Your task to perform on an android device: Show me productivity apps on the Play Store Image 0: 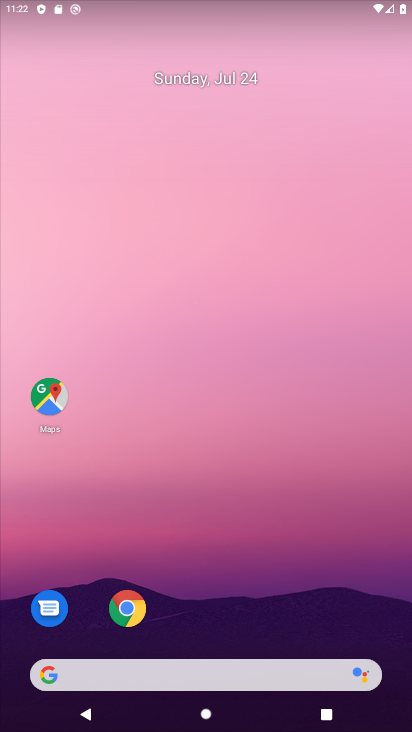
Step 0: drag from (304, 637) to (259, 12)
Your task to perform on an android device: Show me productivity apps on the Play Store Image 1: 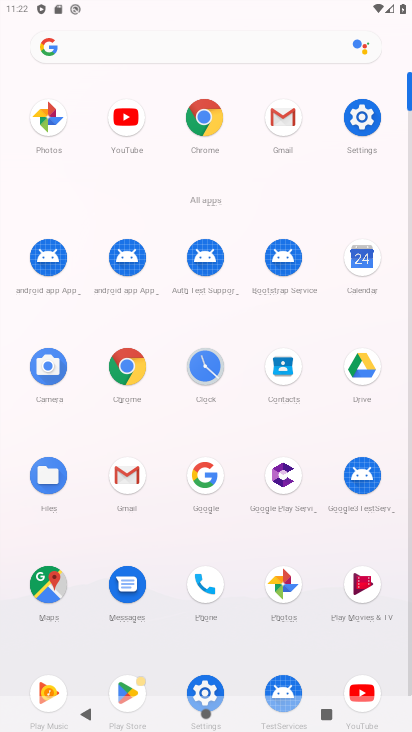
Step 1: click (411, 571)
Your task to perform on an android device: Show me productivity apps on the Play Store Image 2: 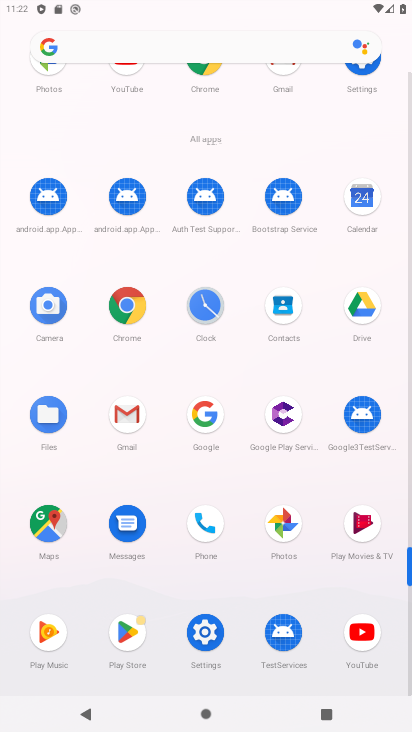
Step 2: click (127, 632)
Your task to perform on an android device: Show me productivity apps on the Play Store Image 3: 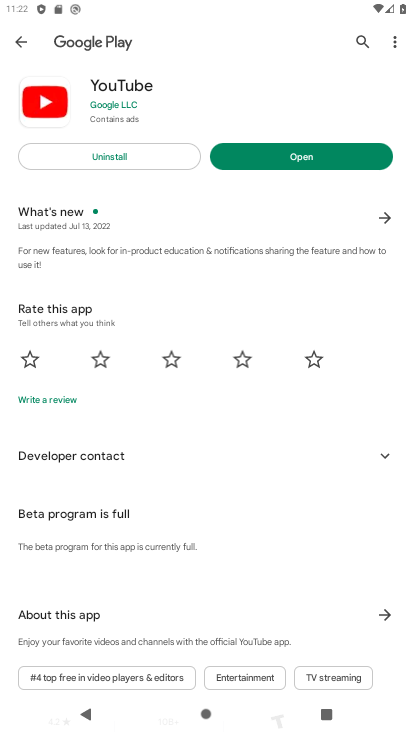
Step 3: click (26, 42)
Your task to perform on an android device: Show me productivity apps on the Play Store Image 4: 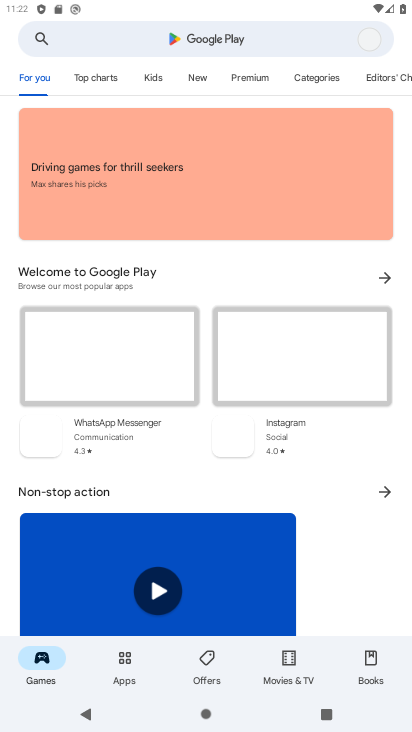
Step 4: click (130, 672)
Your task to perform on an android device: Show me productivity apps on the Play Store Image 5: 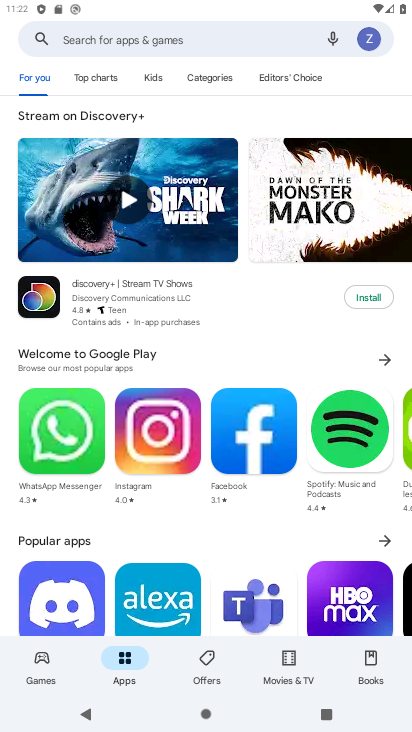
Step 5: click (226, 77)
Your task to perform on an android device: Show me productivity apps on the Play Store Image 6: 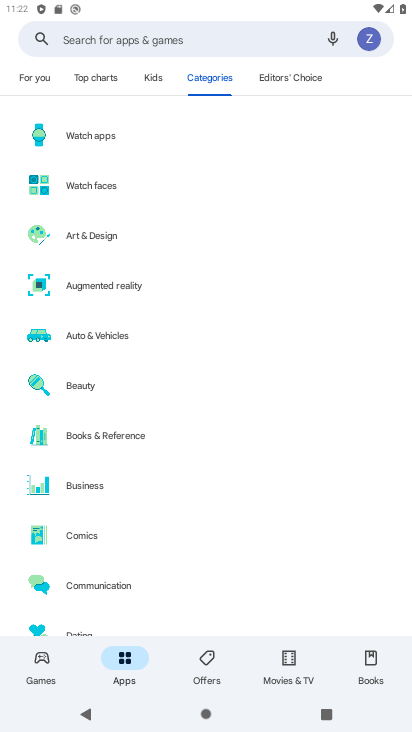
Step 6: drag from (106, 597) to (106, 207)
Your task to perform on an android device: Show me productivity apps on the Play Store Image 7: 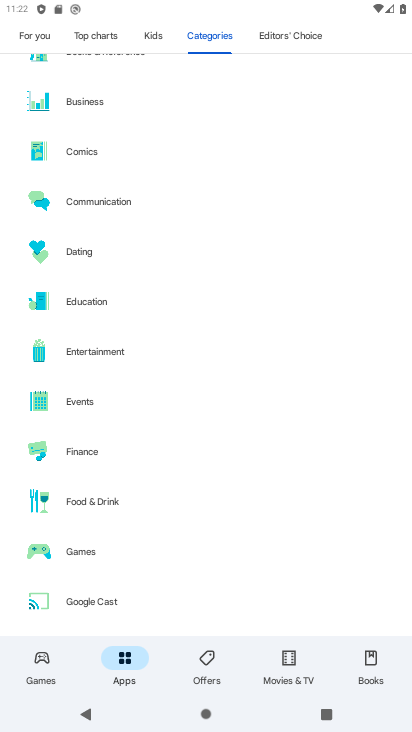
Step 7: drag from (99, 526) to (99, 210)
Your task to perform on an android device: Show me productivity apps on the Play Store Image 8: 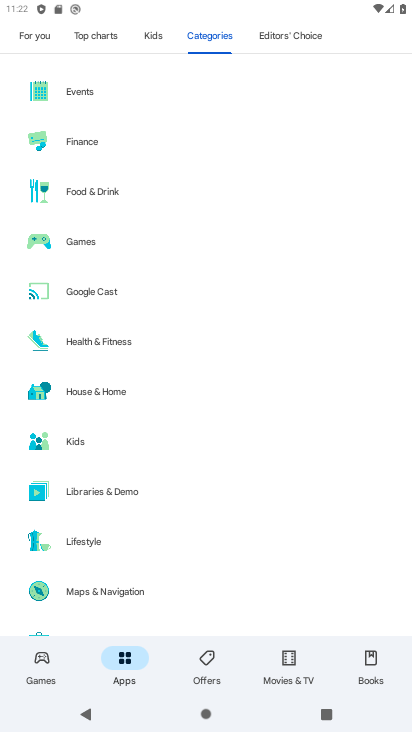
Step 8: drag from (74, 532) to (94, 217)
Your task to perform on an android device: Show me productivity apps on the Play Store Image 9: 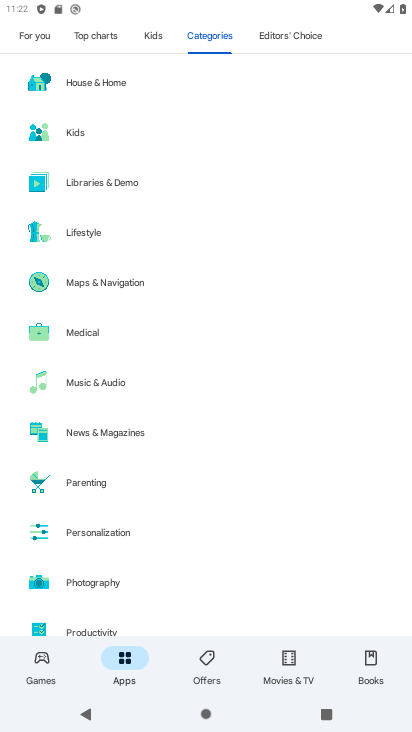
Step 9: drag from (141, 550) to (142, 313)
Your task to perform on an android device: Show me productivity apps on the Play Store Image 10: 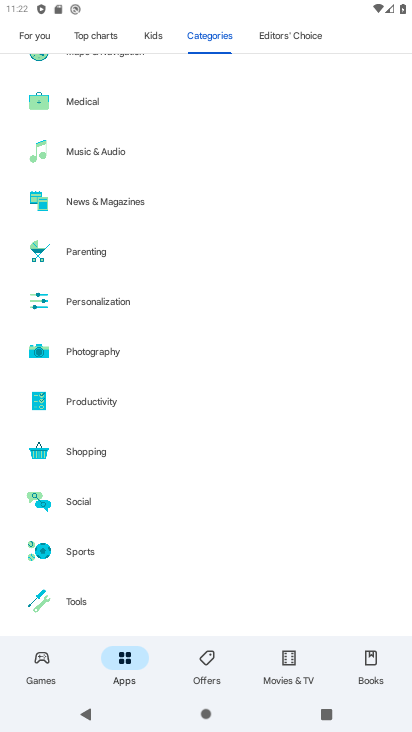
Step 10: click (78, 405)
Your task to perform on an android device: Show me productivity apps on the Play Store Image 11: 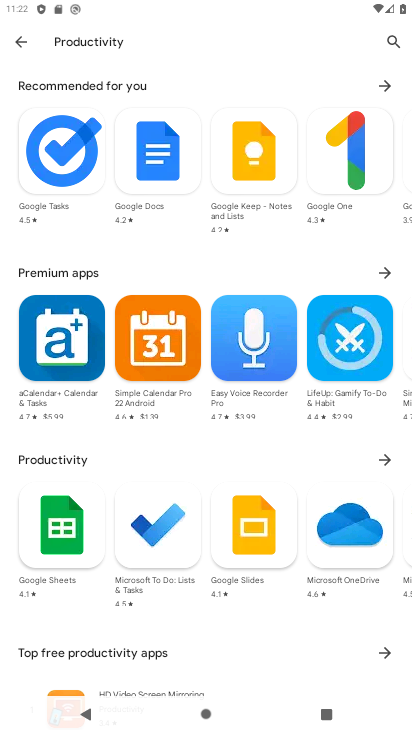
Step 11: task complete